Your task to perform on an android device: Search for pizza restaurants on Maps Image 0: 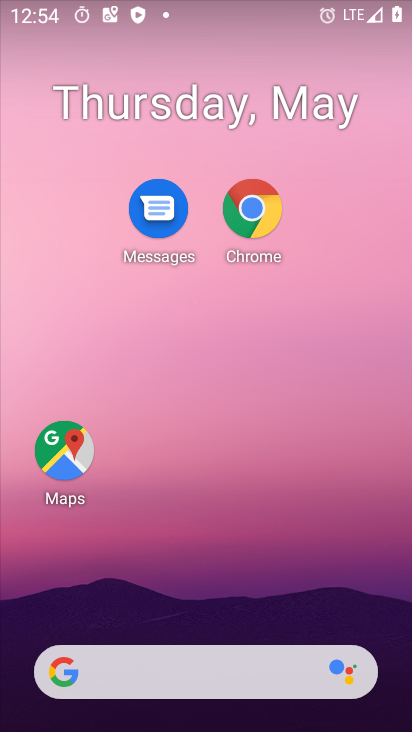
Step 0: click (63, 430)
Your task to perform on an android device: Search for pizza restaurants on Maps Image 1: 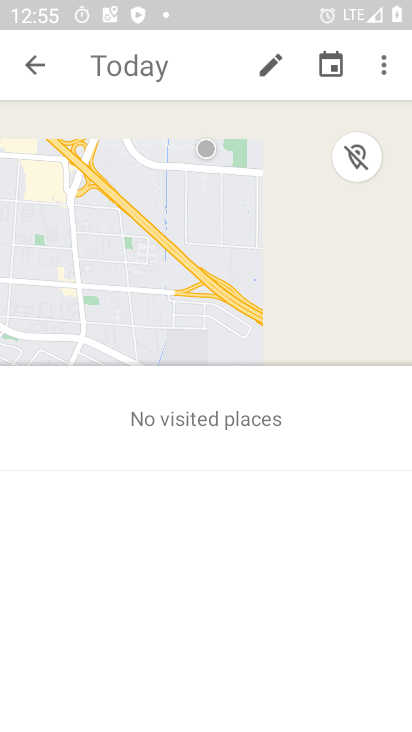
Step 1: click (26, 75)
Your task to perform on an android device: Search for pizza restaurants on Maps Image 2: 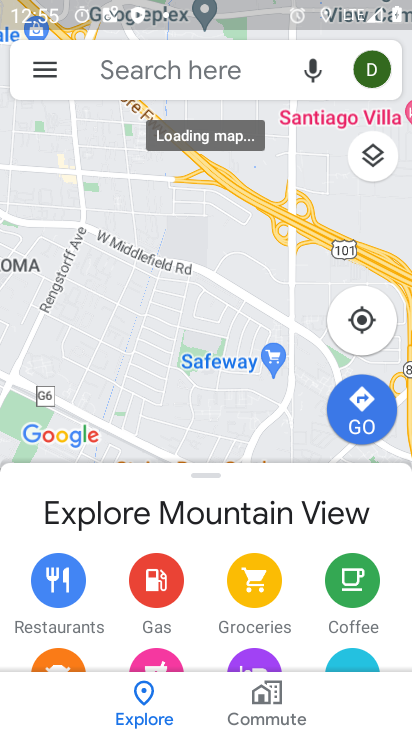
Step 2: click (170, 64)
Your task to perform on an android device: Search for pizza restaurants on Maps Image 3: 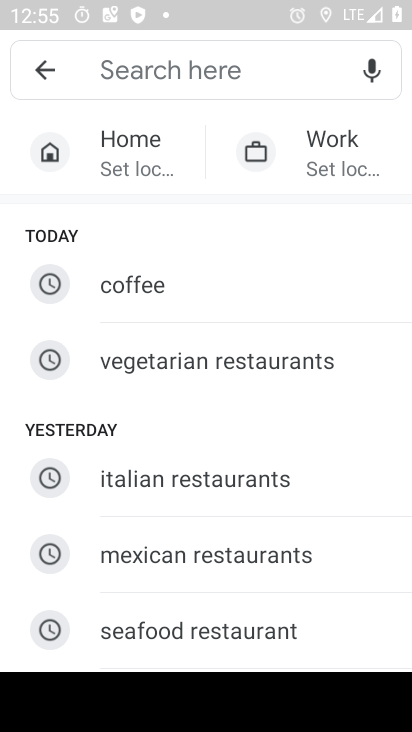
Step 3: drag from (206, 624) to (225, 466)
Your task to perform on an android device: Search for pizza restaurants on Maps Image 4: 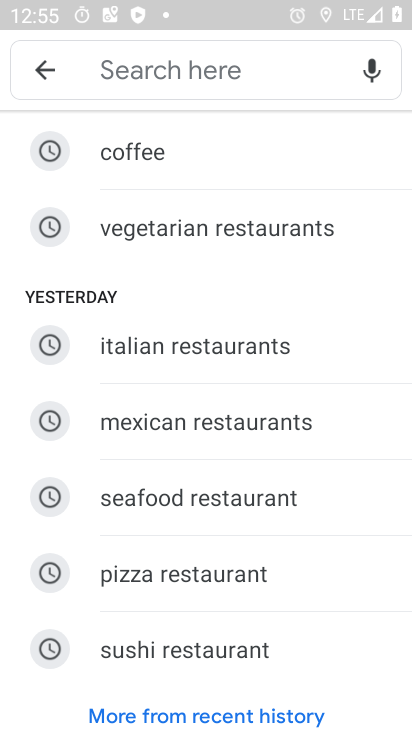
Step 4: click (155, 576)
Your task to perform on an android device: Search for pizza restaurants on Maps Image 5: 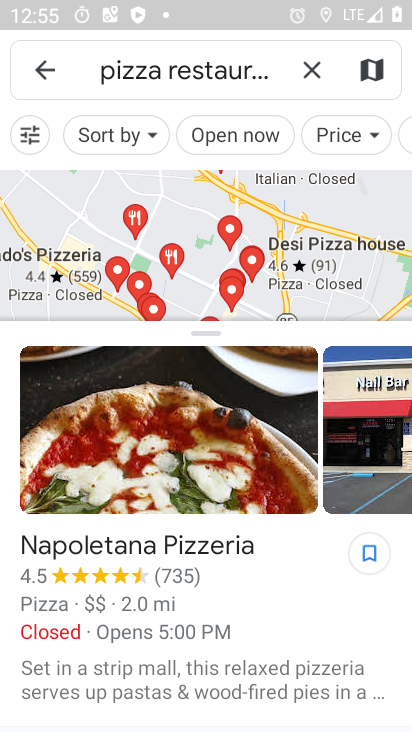
Step 5: task complete